Your task to perform on an android device: Open the Play Movies app and select the watchlist tab. Image 0: 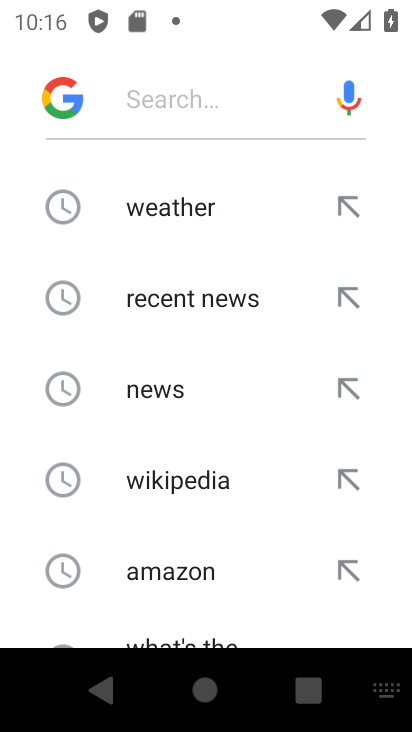
Step 0: press back button
Your task to perform on an android device: Open the Play Movies app and select the watchlist tab. Image 1: 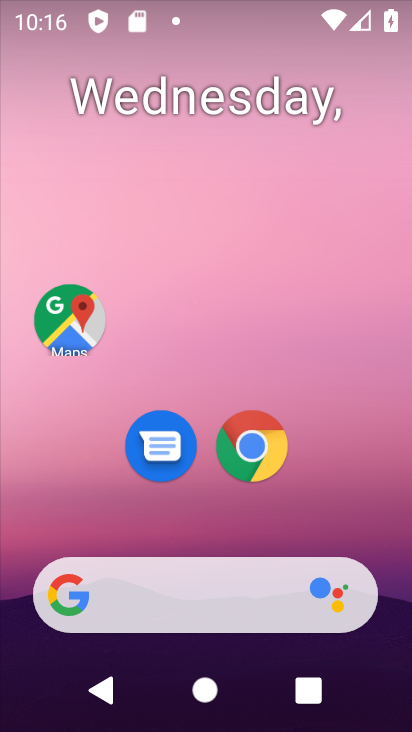
Step 1: drag from (85, 549) to (183, 70)
Your task to perform on an android device: Open the Play Movies app and select the watchlist tab. Image 2: 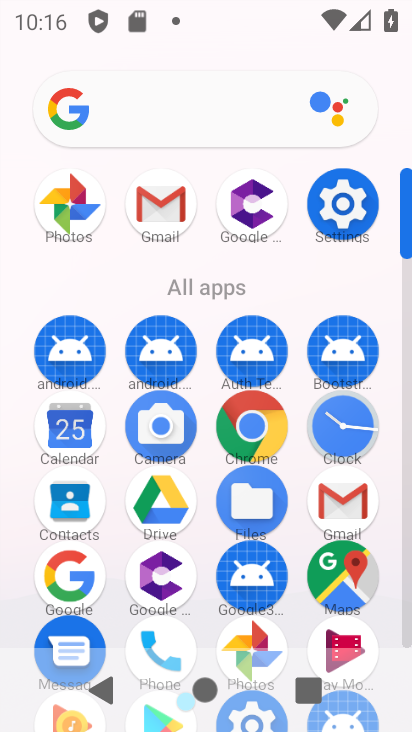
Step 2: drag from (232, 605) to (295, 396)
Your task to perform on an android device: Open the Play Movies app and select the watchlist tab. Image 3: 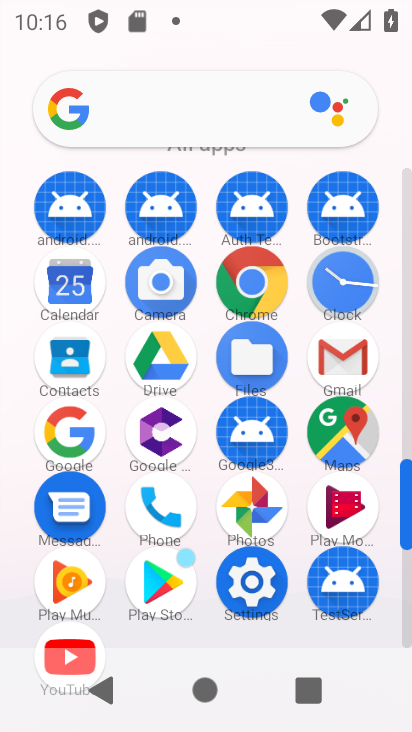
Step 3: click (344, 499)
Your task to perform on an android device: Open the Play Movies app and select the watchlist tab. Image 4: 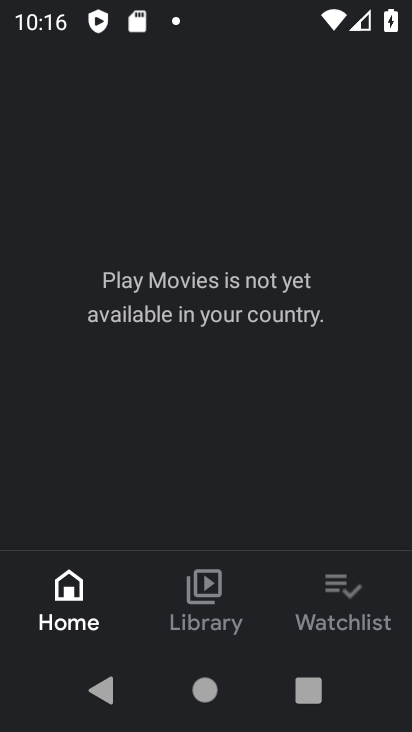
Step 4: click (315, 602)
Your task to perform on an android device: Open the Play Movies app and select the watchlist tab. Image 5: 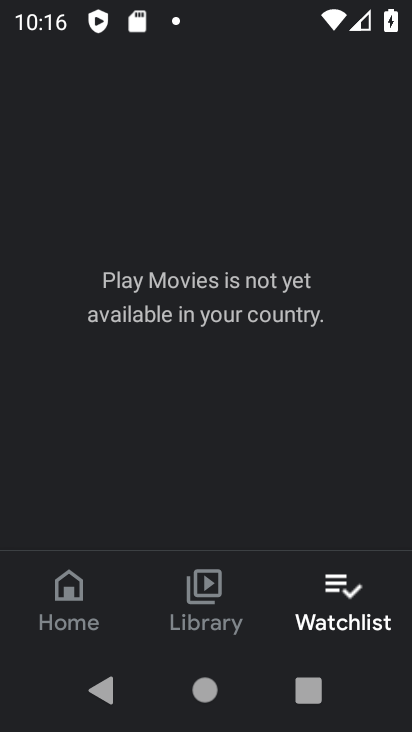
Step 5: task complete